Your task to perform on an android device: Check the weather Image 0: 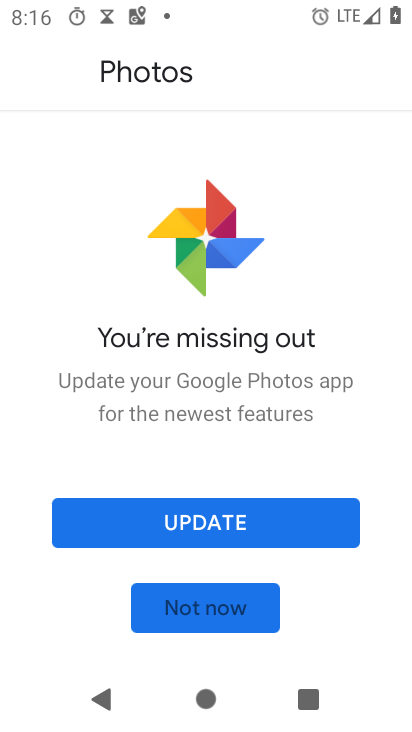
Step 0: press home button
Your task to perform on an android device: Check the weather Image 1: 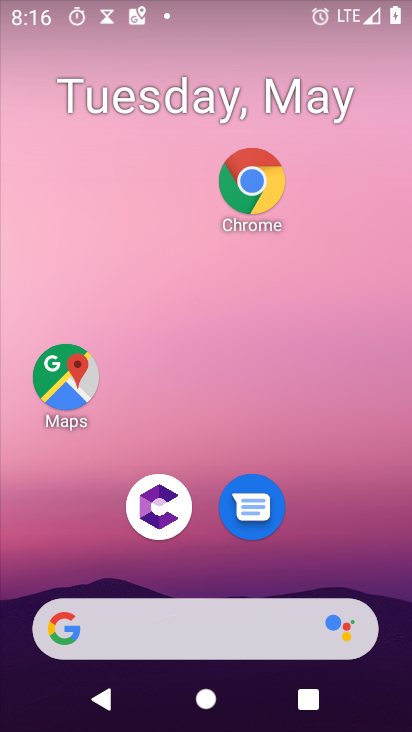
Step 1: click (198, 621)
Your task to perform on an android device: Check the weather Image 2: 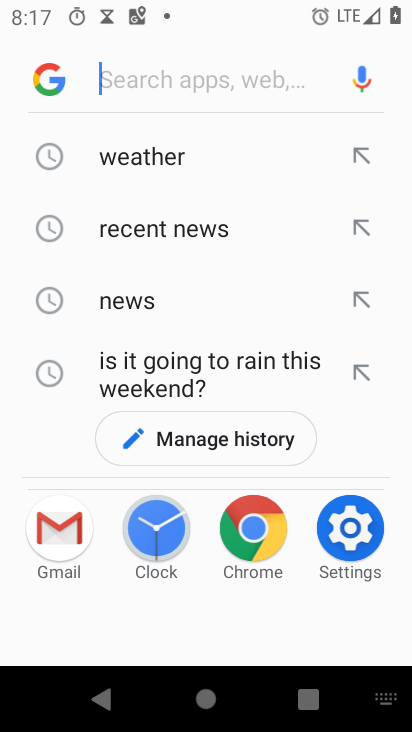
Step 2: type "weather"
Your task to perform on an android device: Check the weather Image 3: 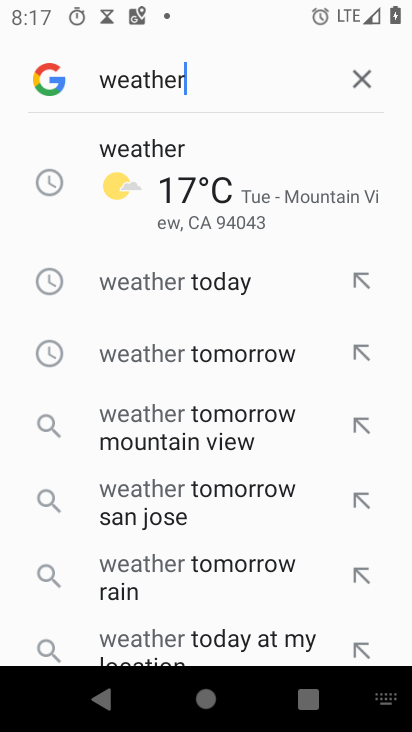
Step 3: click (144, 148)
Your task to perform on an android device: Check the weather Image 4: 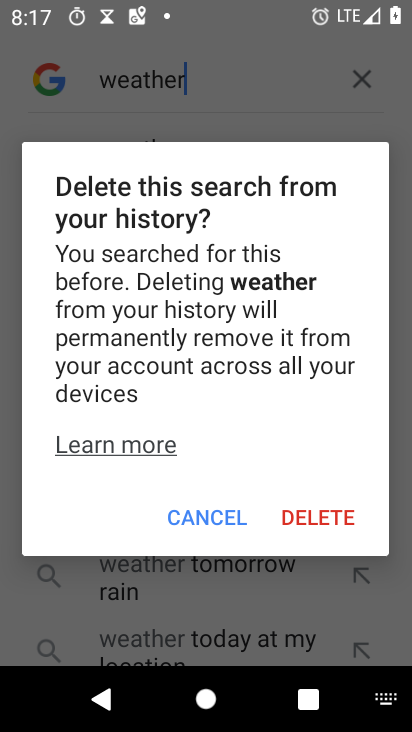
Step 4: click (171, 514)
Your task to perform on an android device: Check the weather Image 5: 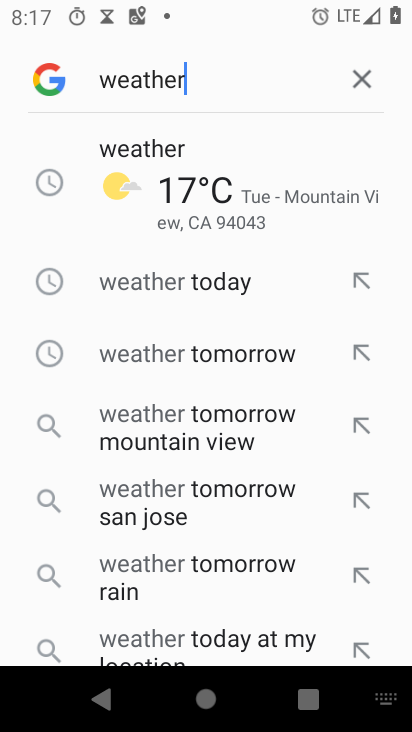
Step 5: click (121, 214)
Your task to perform on an android device: Check the weather Image 6: 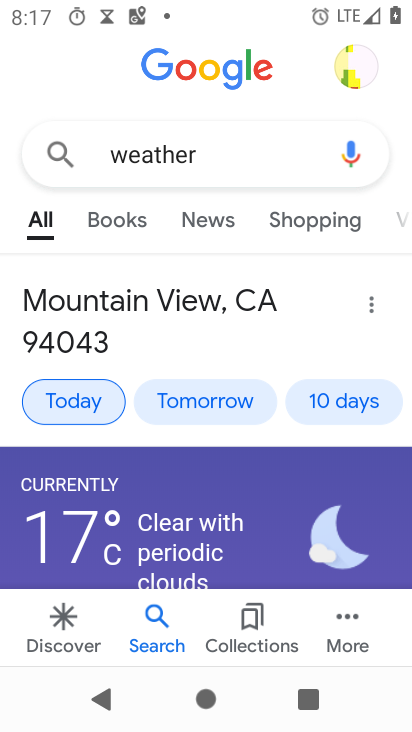
Step 6: task complete